Your task to perform on an android device: Search for pizza restaurants on Maps Image 0: 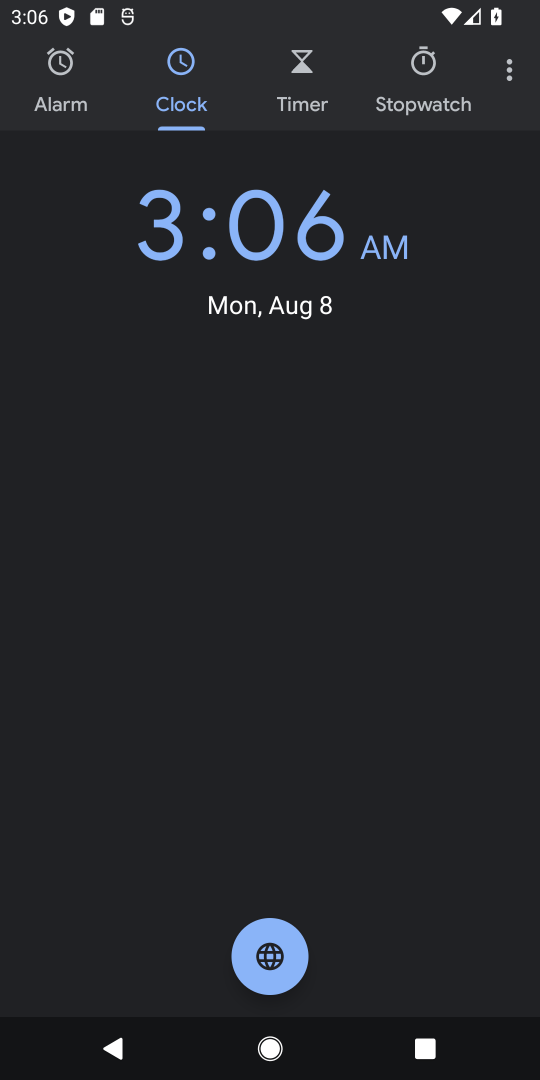
Step 0: press back button
Your task to perform on an android device: Search for pizza restaurants on Maps Image 1: 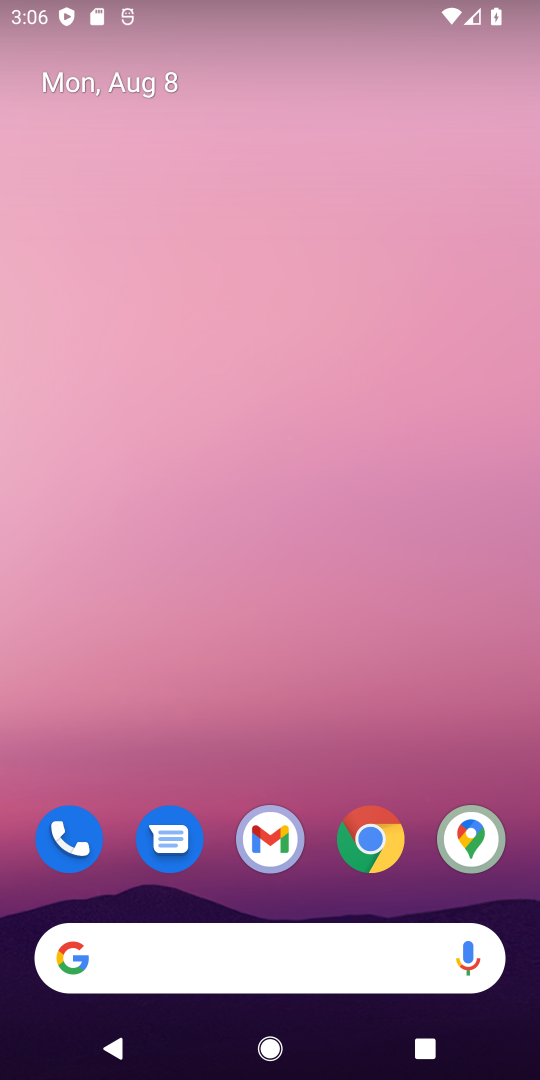
Step 1: drag from (314, 926) to (252, 143)
Your task to perform on an android device: Search for pizza restaurants on Maps Image 2: 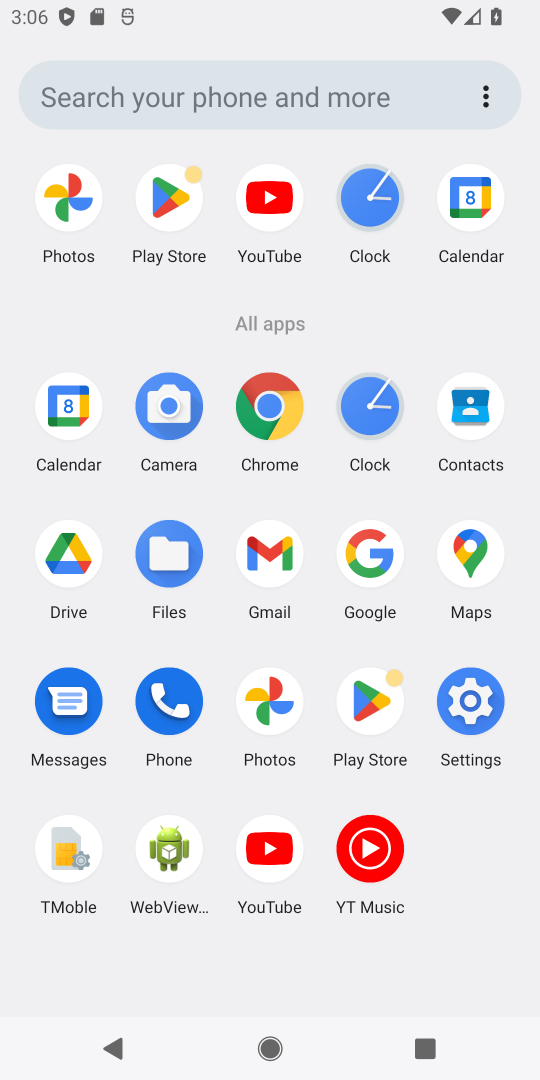
Step 2: click (489, 557)
Your task to perform on an android device: Search for pizza restaurants on Maps Image 3: 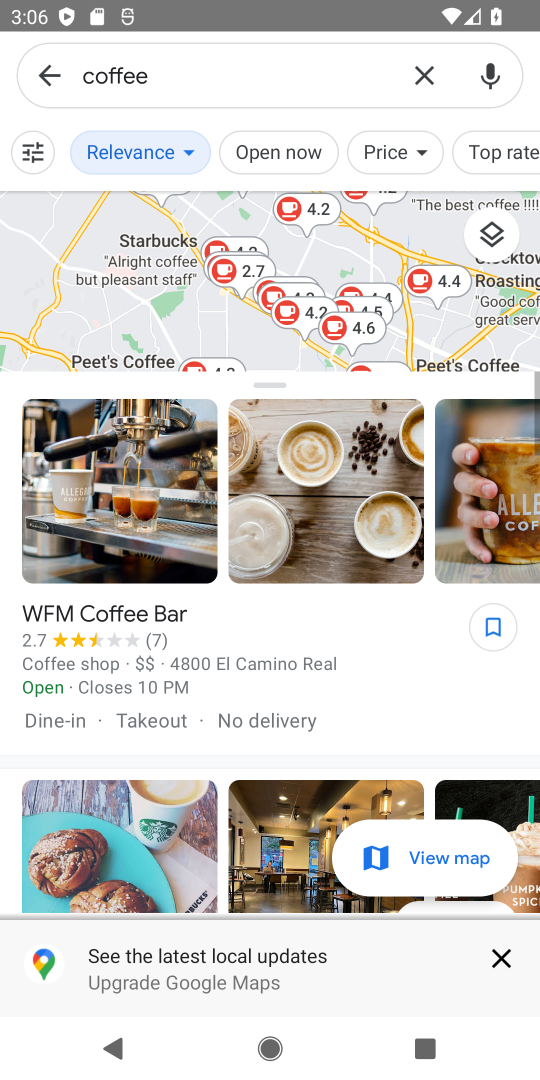
Step 3: click (430, 80)
Your task to perform on an android device: Search for pizza restaurants on Maps Image 4: 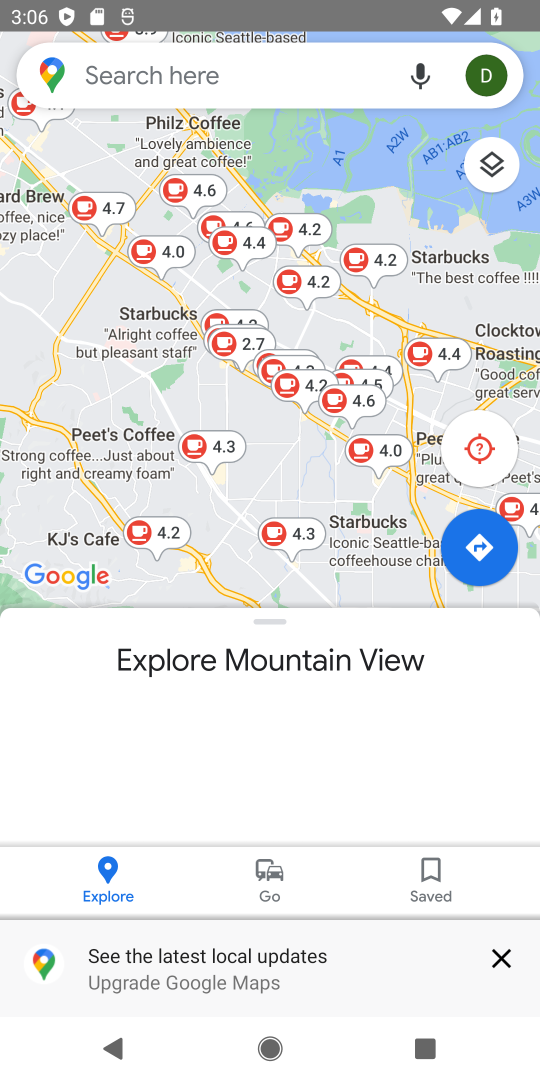
Step 4: click (302, 62)
Your task to perform on an android device: Search for pizza restaurants on Maps Image 5: 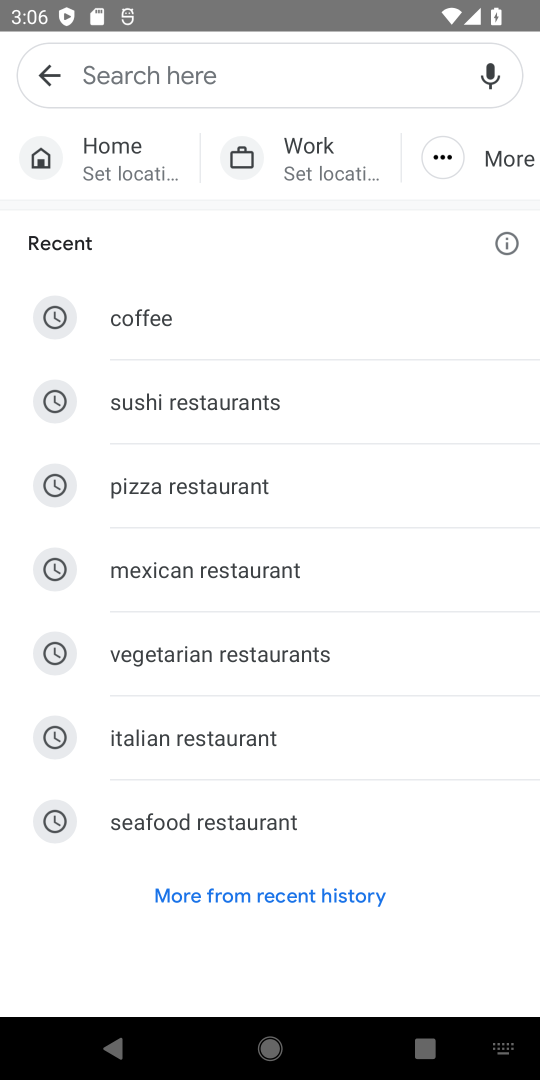
Step 5: click (257, 493)
Your task to perform on an android device: Search for pizza restaurants on Maps Image 6: 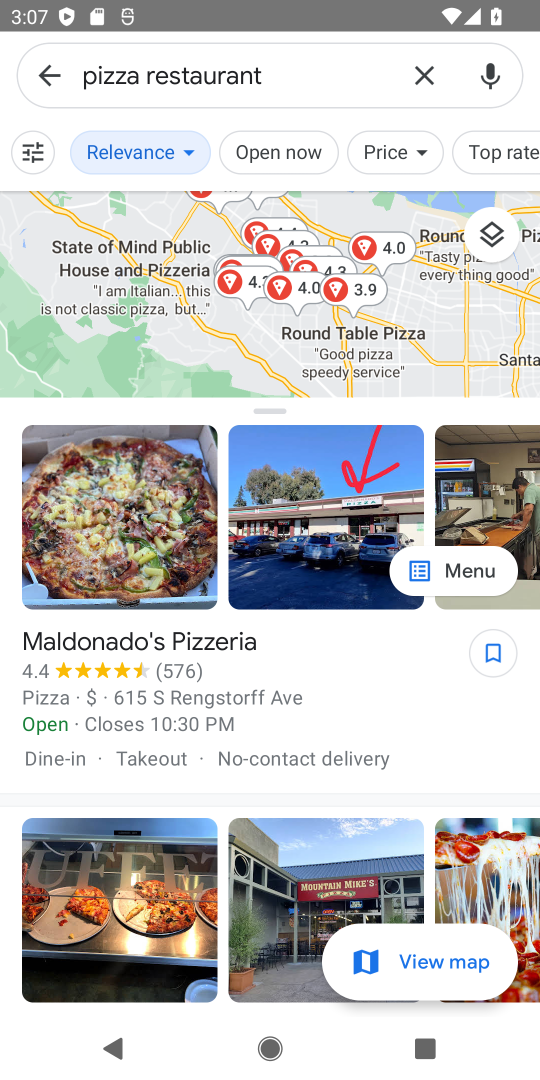
Step 6: task complete